Your task to perform on an android device: Open the Play Movies app and select the watchlist tab. Image 0: 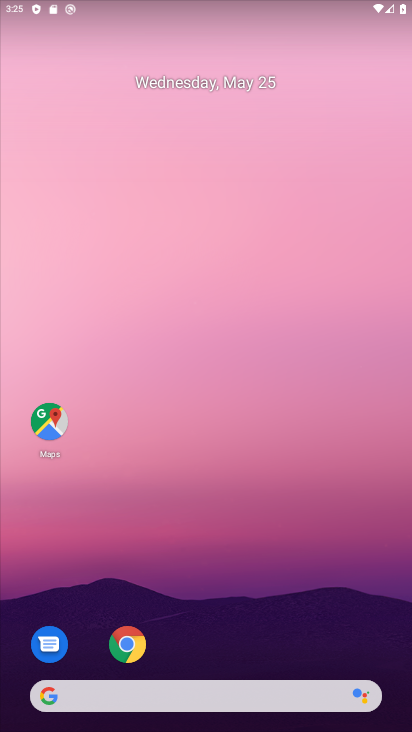
Step 0: drag from (272, 667) to (285, 16)
Your task to perform on an android device: Open the Play Movies app and select the watchlist tab. Image 1: 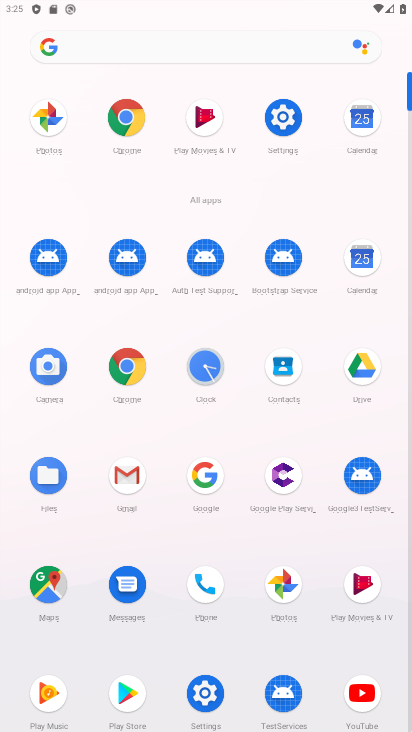
Step 1: click (362, 588)
Your task to perform on an android device: Open the Play Movies app and select the watchlist tab. Image 2: 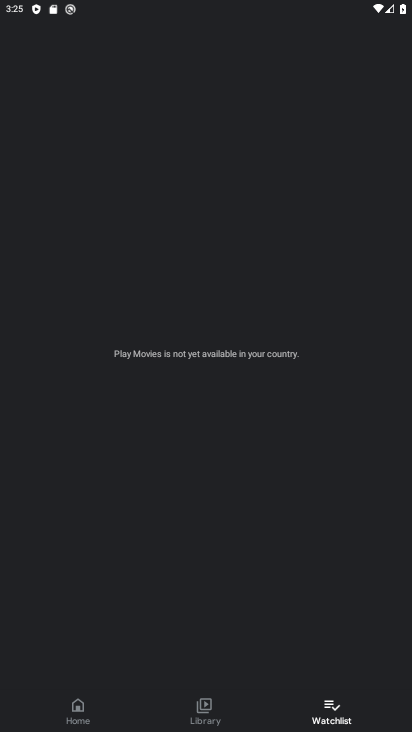
Step 2: task complete